Your task to perform on an android device: Open location settings Image 0: 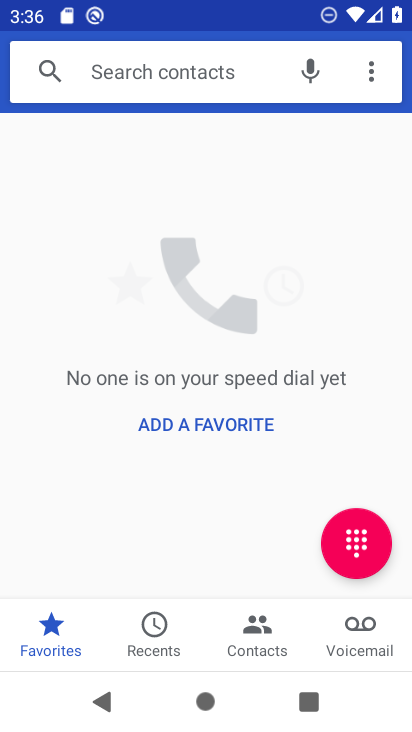
Step 0: press home button
Your task to perform on an android device: Open location settings Image 1: 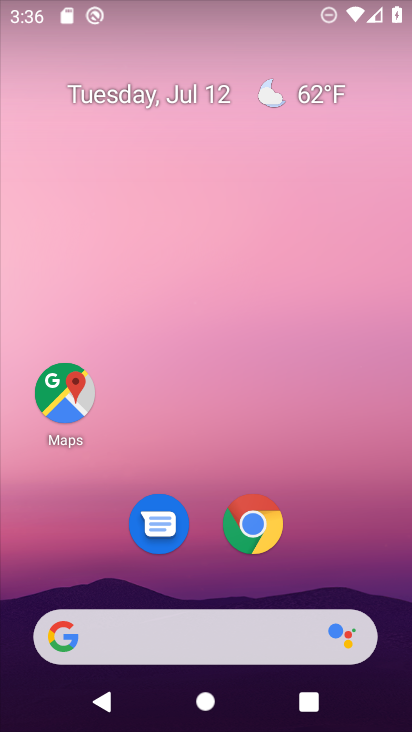
Step 1: drag from (345, 589) to (360, 39)
Your task to perform on an android device: Open location settings Image 2: 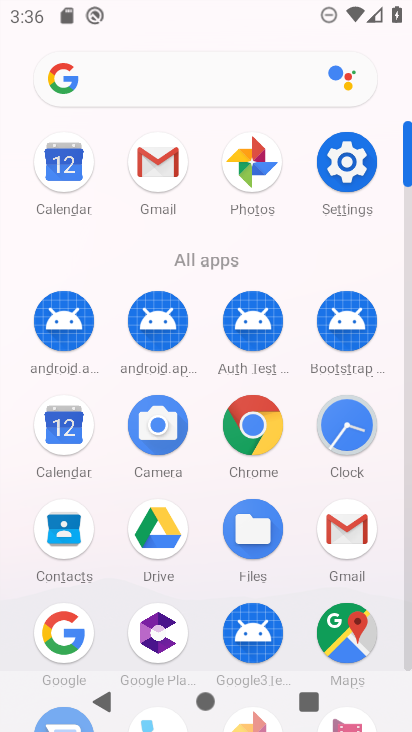
Step 2: click (350, 162)
Your task to perform on an android device: Open location settings Image 3: 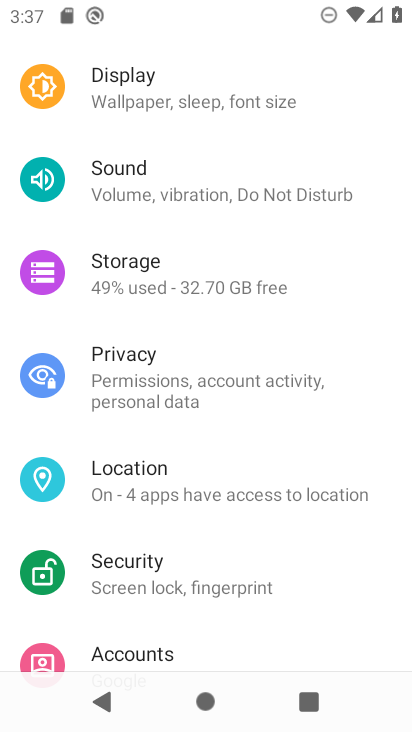
Step 3: click (198, 495)
Your task to perform on an android device: Open location settings Image 4: 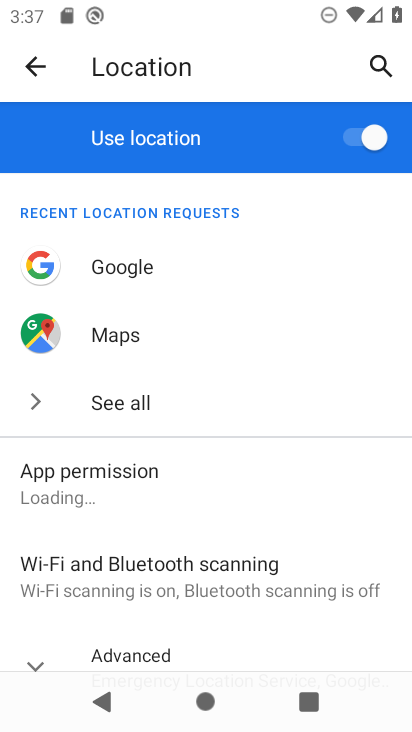
Step 4: task complete